Your task to perform on an android device: Go to accessibility settings Image 0: 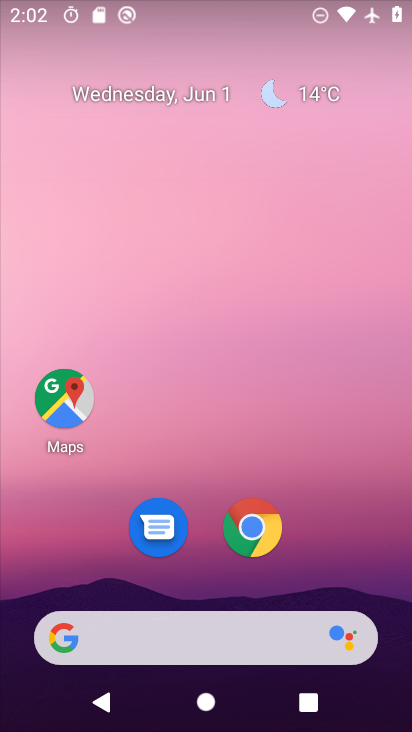
Step 0: drag from (181, 573) to (224, 105)
Your task to perform on an android device: Go to accessibility settings Image 1: 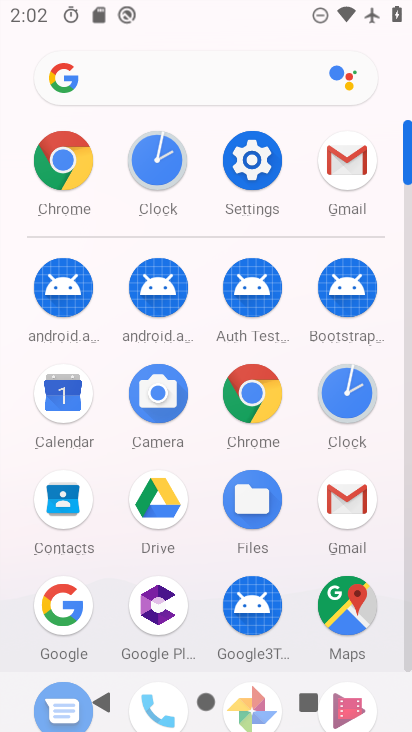
Step 1: click (184, 247)
Your task to perform on an android device: Go to accessibility settings Image 2: 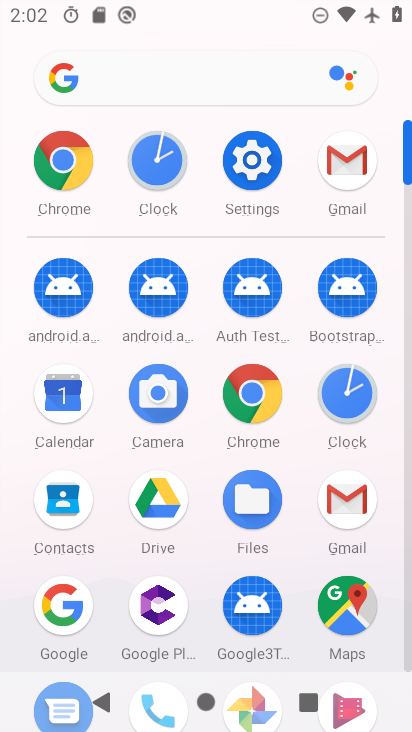
Step 2: click (237, 179)
Your task to perform on an android device: Go to accessibility settings Image 3: 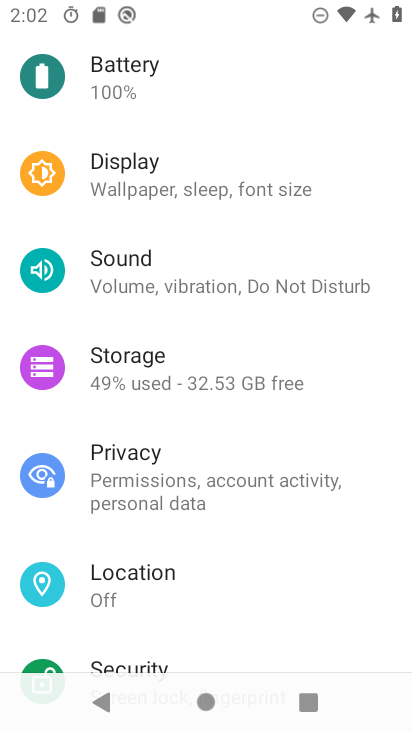
Step 3: drag from (189, 560) to (250, 92)
Your task to perform on an android device: Go to accessibility settings Image 4: 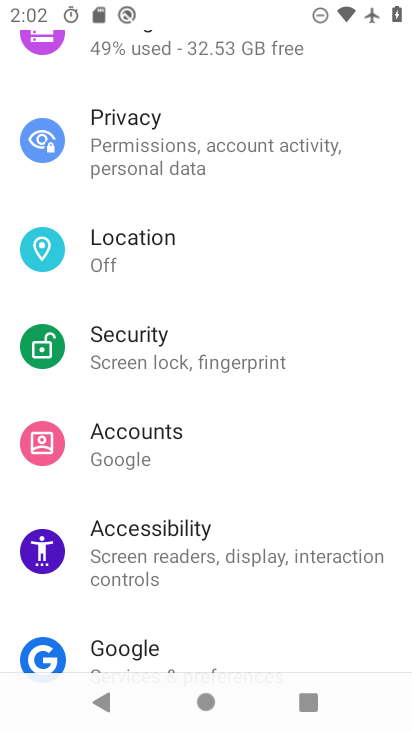
Step 4: click (197, 564)
Your task to perform on an android device: Go to accessibility settings Image 5: 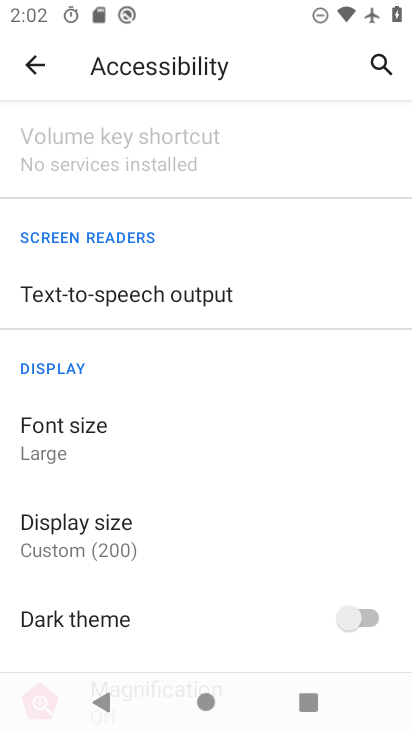
Step 5: task complete